Your task to perform on an android device: When is my next appointment? Image 0: 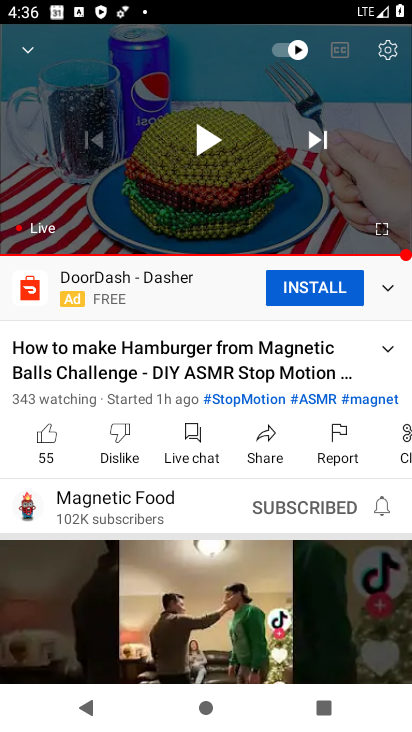
Step 0: press home button
Your task to perform on an android device: When is my next appointment? Image 1: 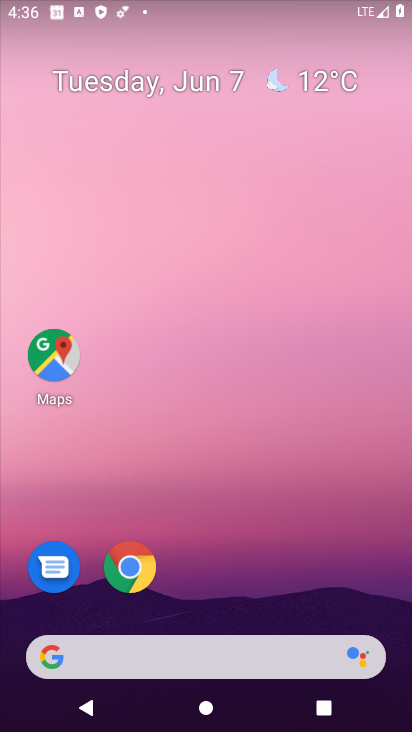
Step 1: drag from (272, 682) to (251, 90)
Your task to perform on an android device: When is my next appointment? Image 2: 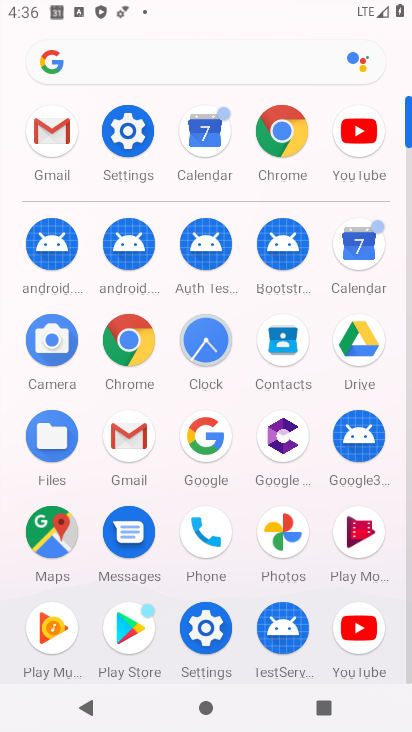
Step 2: click (356, 253)
Your task to perform on an android device: When is my next appointment? Image 3: 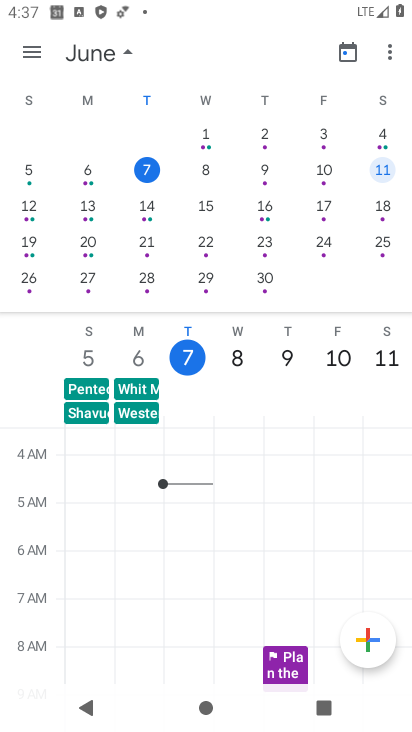
Step 3: click (196, 169)
Your task to perform on an android device: When is my next appointment? Image 4: 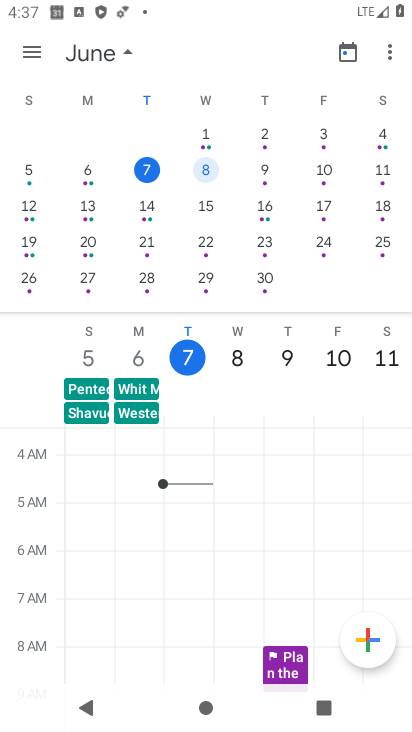
Step 4: task complete